Your task to perform on an android device: Show me popular videos on Youtube Image 0: 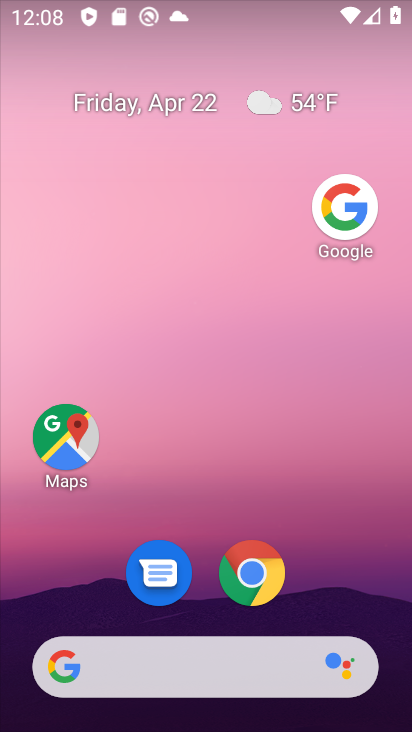
Step 0: drag from (177, 656) to (326, 4)
Your task to perform on an android device: Show me popular videos on Youtube Image 1: 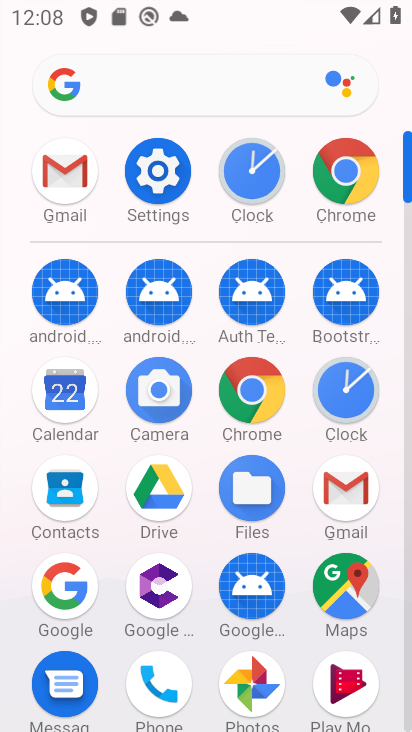
Step 1: drag from (214, 607) to (381, 100)
Your task to perform on an android device: Show me popular videos on Youtube Image 2: 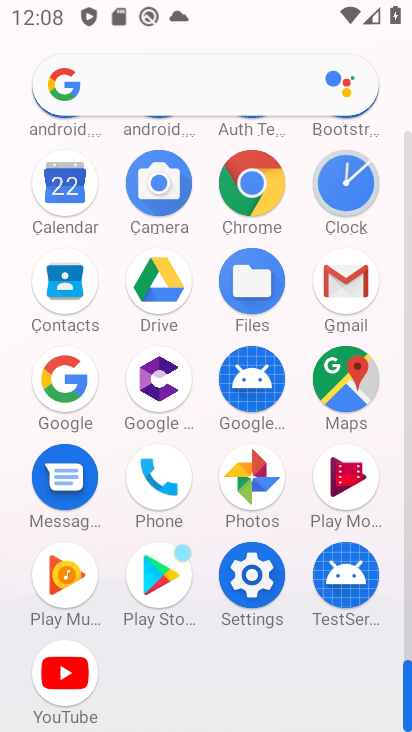
Step 2: click (71, 671)
Your task to perform on an android device: Show me popular videos on Youtube Image 3: 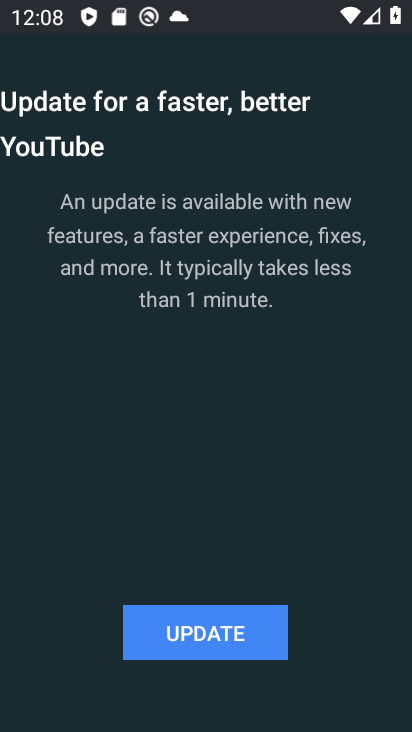
Step 3: click (168, 635)
Your task to perform on an android device: Show me popular videos on Youtube Image 4: 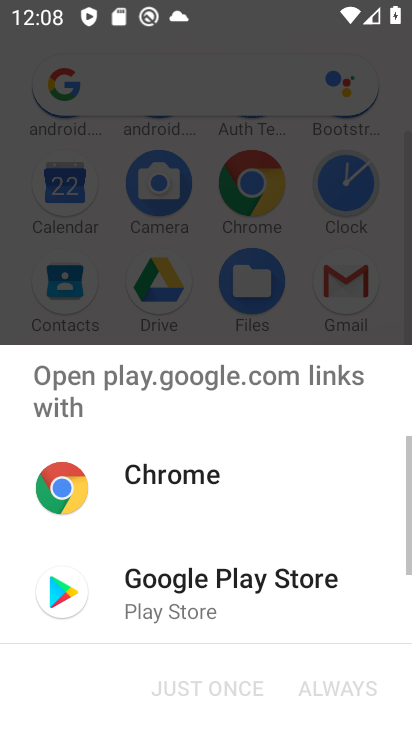
Step 4: click (162, 594)
Your task to perform on an android device: Show me popular videos on Youtube Image 5: 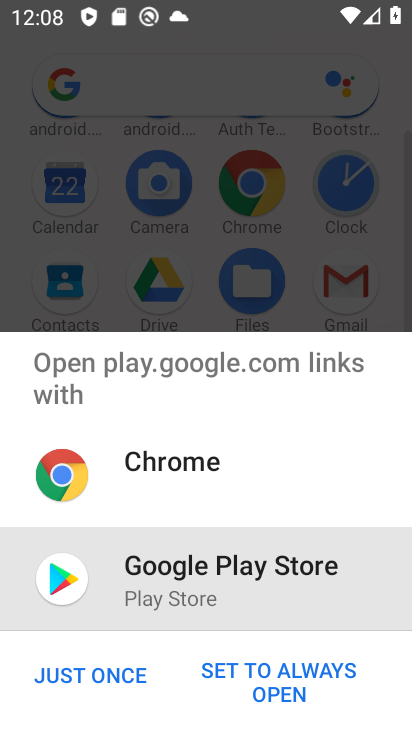
Step 5: click (96, 673)
Your task to perform on an android device: Show me popular videos on Youtube Image 6: 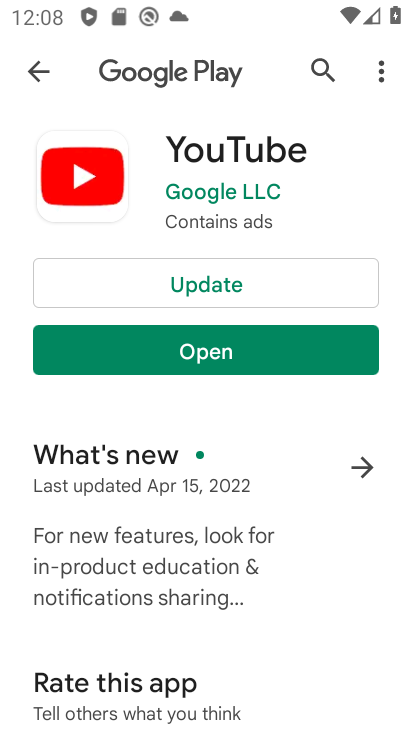
Step 6: click (230, 275)
Your task to perform on an android device: Show me popular videos on Youtube Image 7: 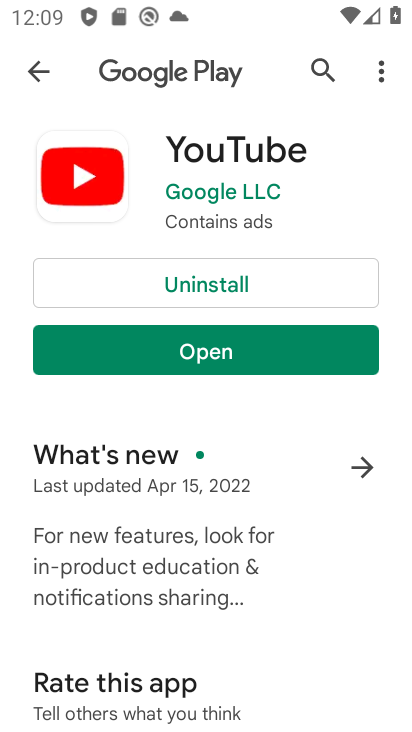
Step 7: click (231, 367)
Your task to perform on an android device: Show me popular videos on Youtube Image 8: 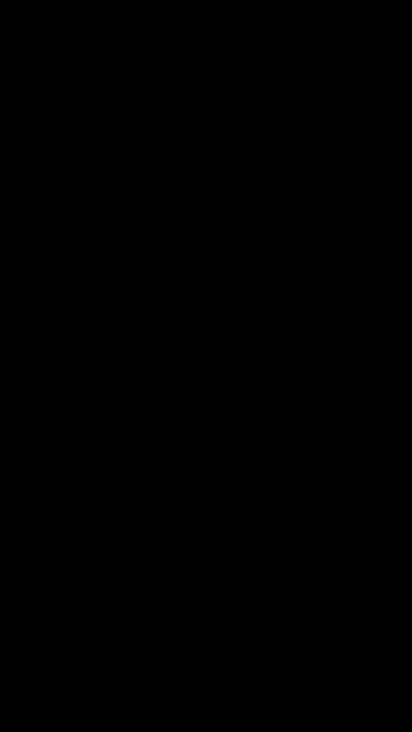
Step 8: task complete